Your task to perform on an android device: toggle notifications settings in the gmail app Image 0: 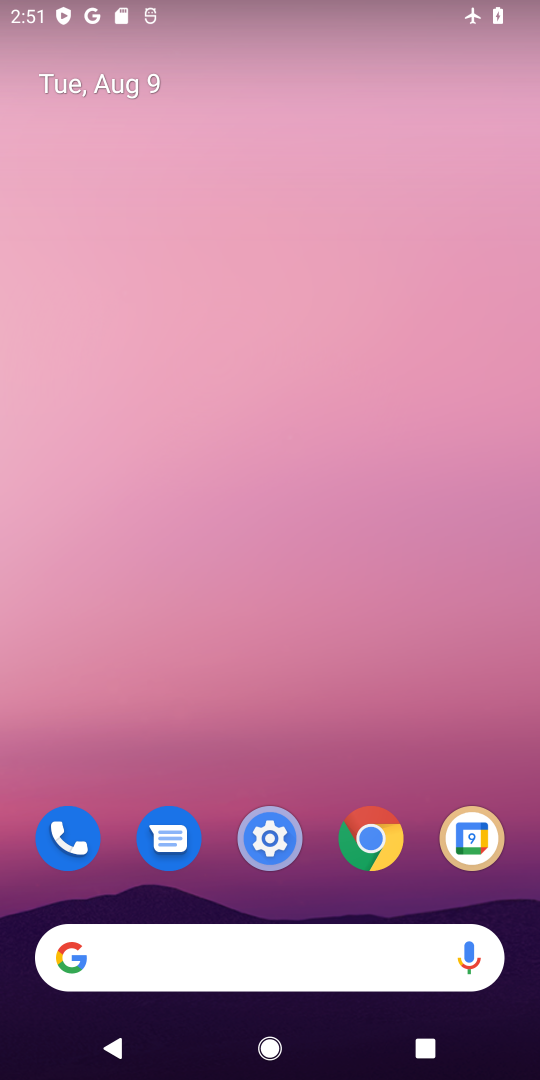
Step 0: drag from (379, 766) to (431, 46)
Your task to perform on an android device: toggle notifications settings in the gmail app Image 1: 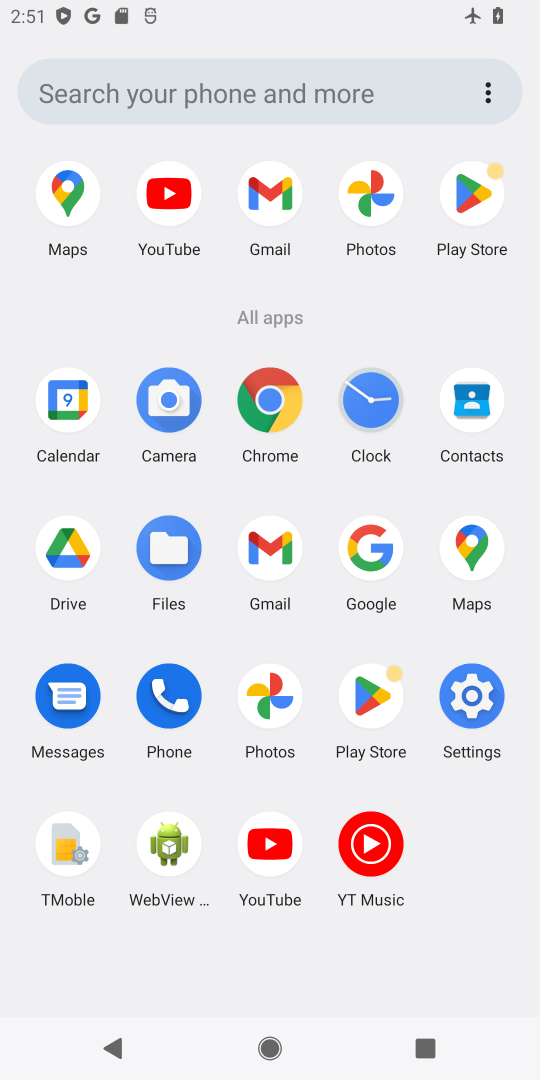
Step 1: click (280, 551)
Your task to perform on an android device: toggle notifications settings in the gmail app Image 2: 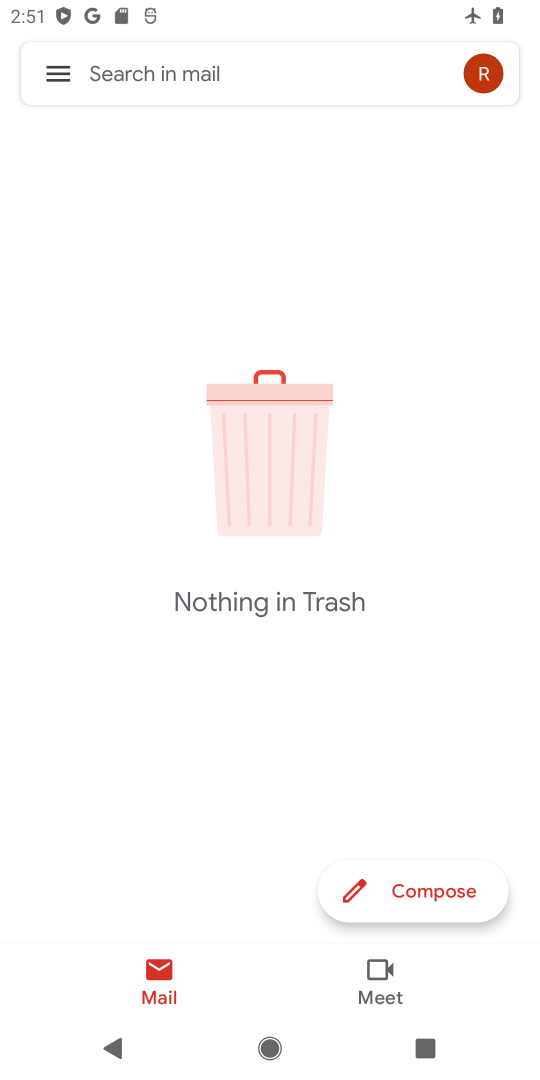
Step 2: click (190, 219)
Your task to perform on an android device: toggle notifications settings in the gmail app Image 3: 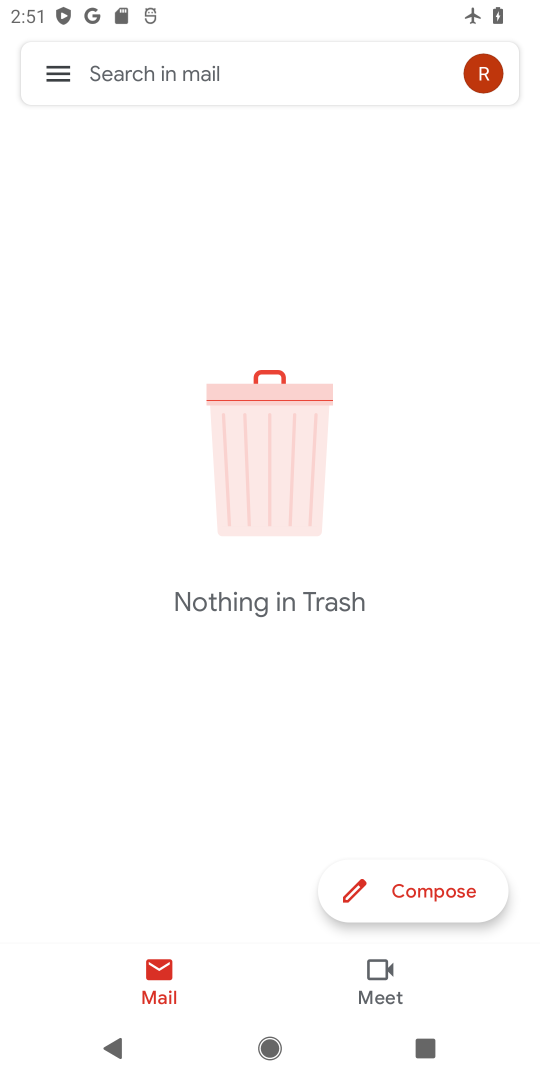
Step 3: click (181, 257)
Your task to perform on an android device: toggle notifications settings in the gmail app Image 4: 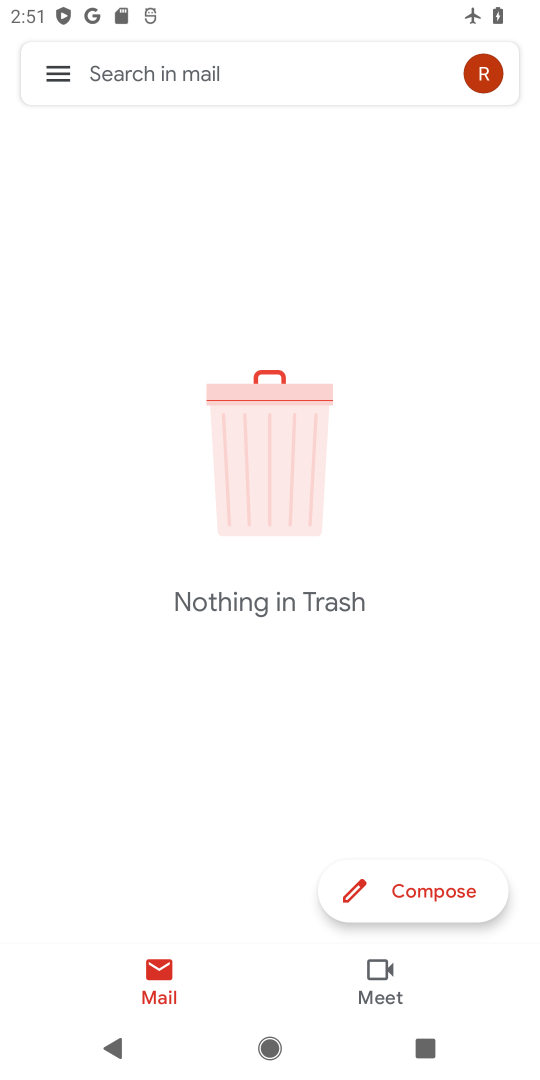
Step 4: click (46, 82)
Your task to perform on an android device: toggle notifications settings in the gmail app Image 5: 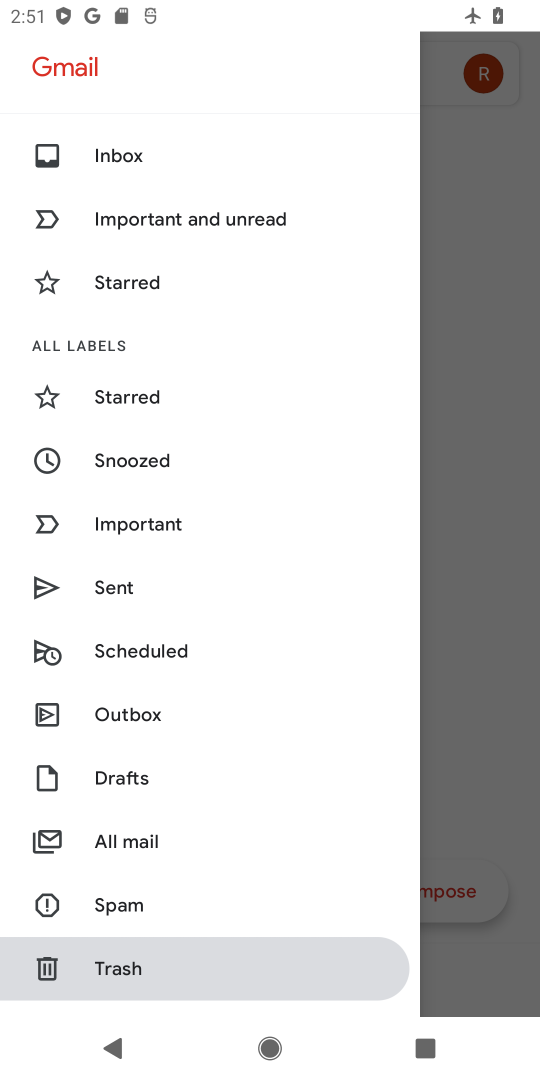
Step 5: drag from (223, 900) to (286, 312)
Your task to perform on an android device: toggle notifications settings in the gmail app Image 6: 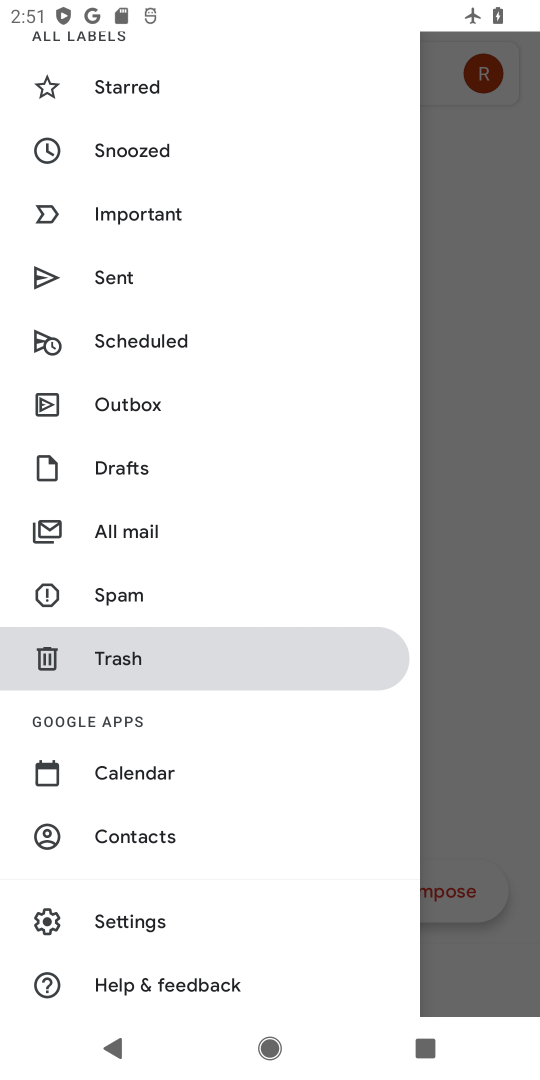
Step 6: click (111, 928)
Your task to perform on an android device: toggle notifications settings in the gmail app Image 7: 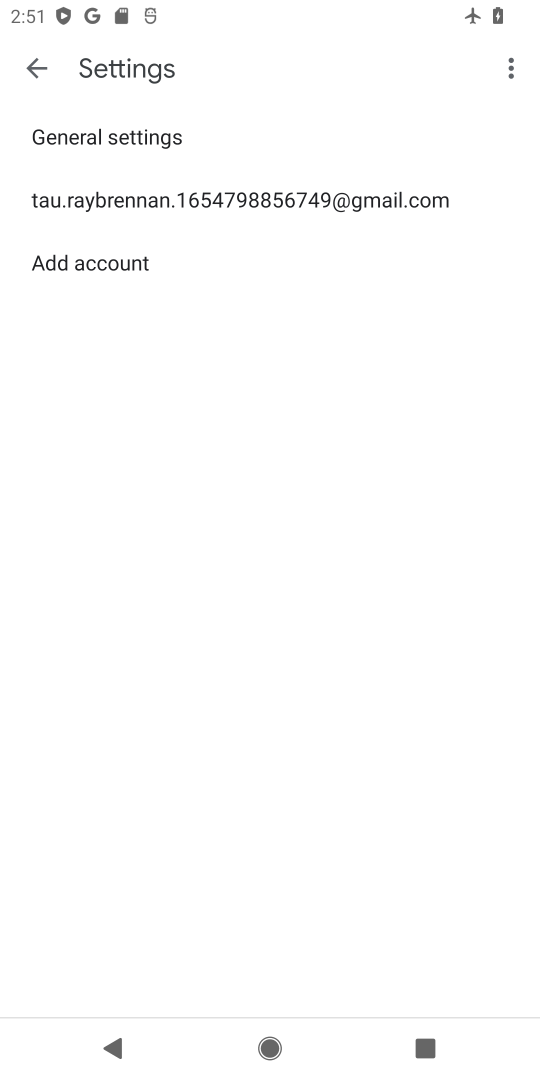
Step 7: click (133, 210)
Your task to perform on an android device: toggle notifications settings in the gmail app Image 8: 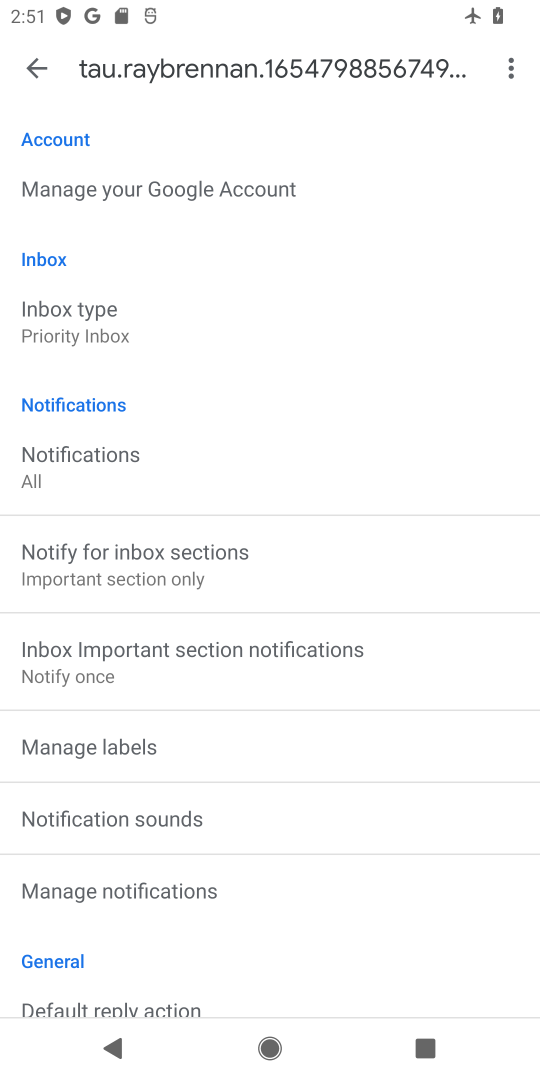
Step 8: click (197, 903)
Your task to perform on an android device: toggle notifications settings in the gmail app Image 9: 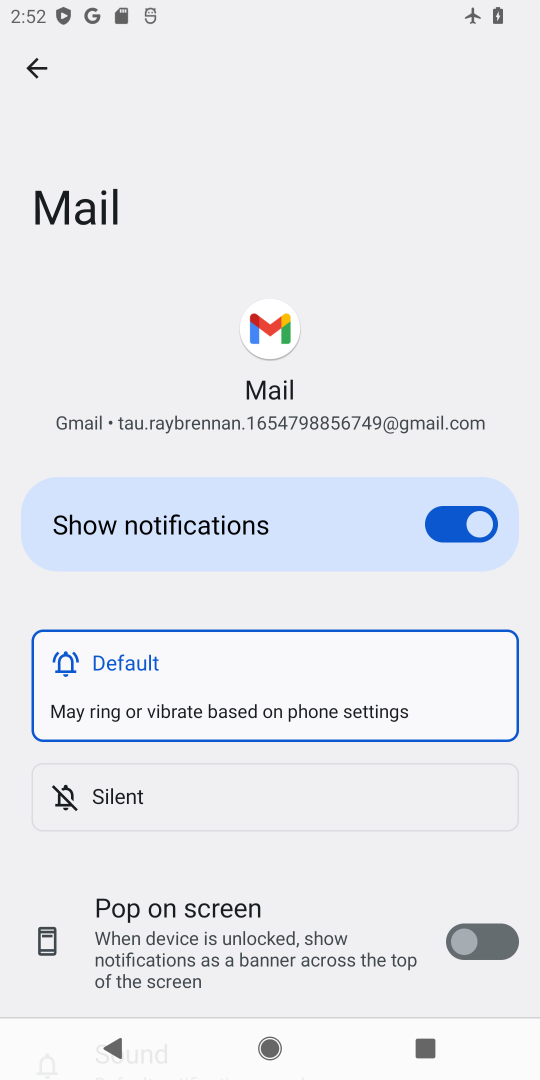
Step 9: click (486, 514)
Your task to perform on an android device: toggle notifications settings in the gmail app Image 10: 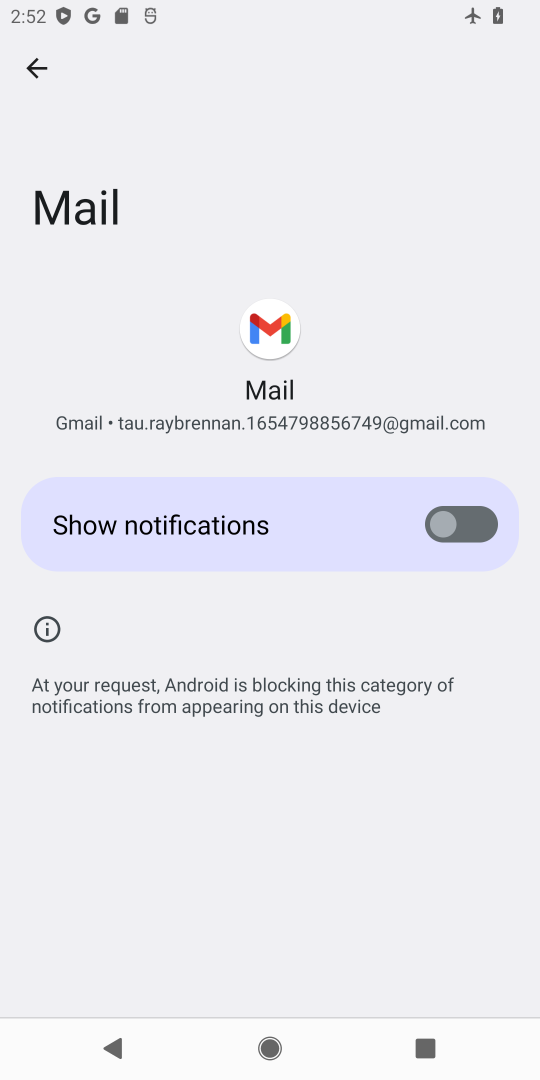
Step 10: task complete